Your task to perform on an android device: open app "LiveIn - Share Your Moment" Image 0: 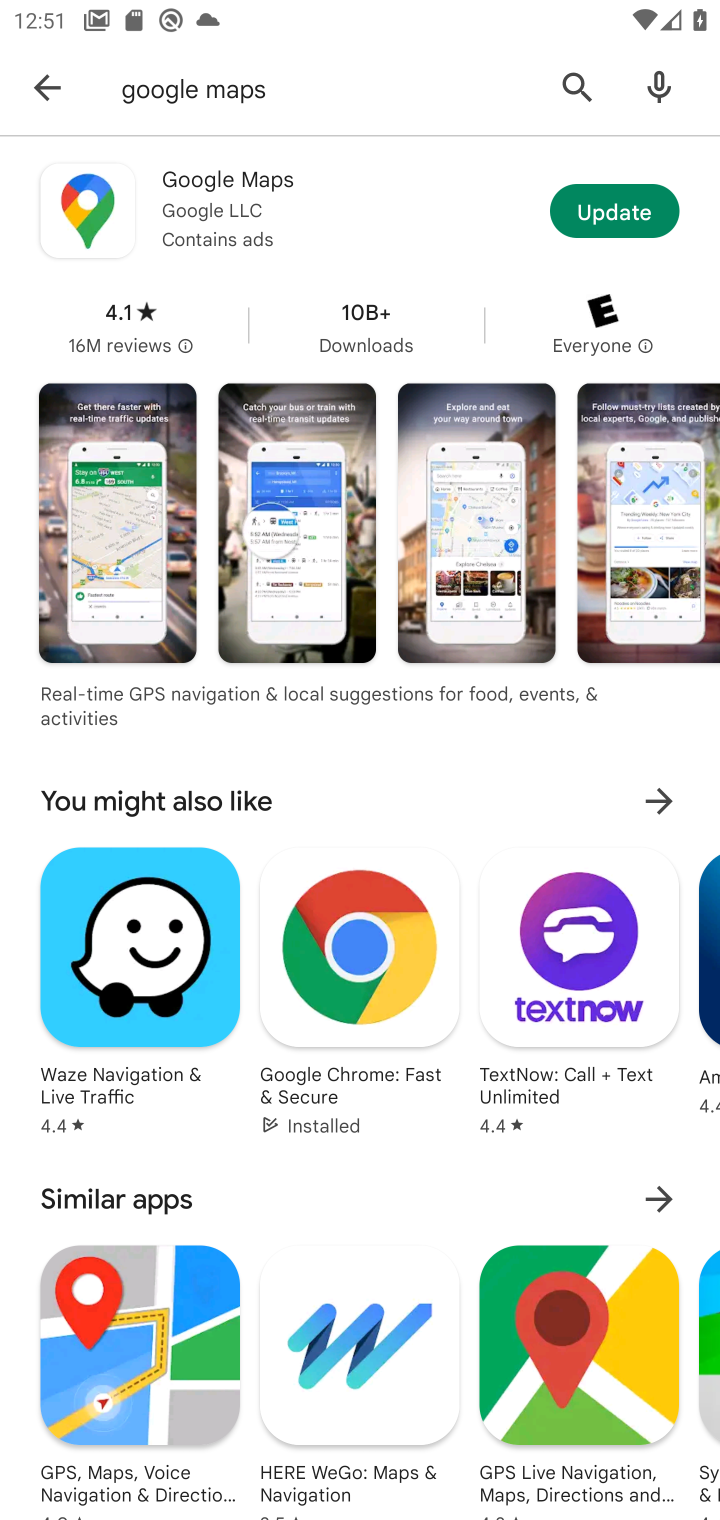
Step 0: click (50, 79)
Your task to perform on an android device: open app "LiveIn - Share Your Moment" Image 1: 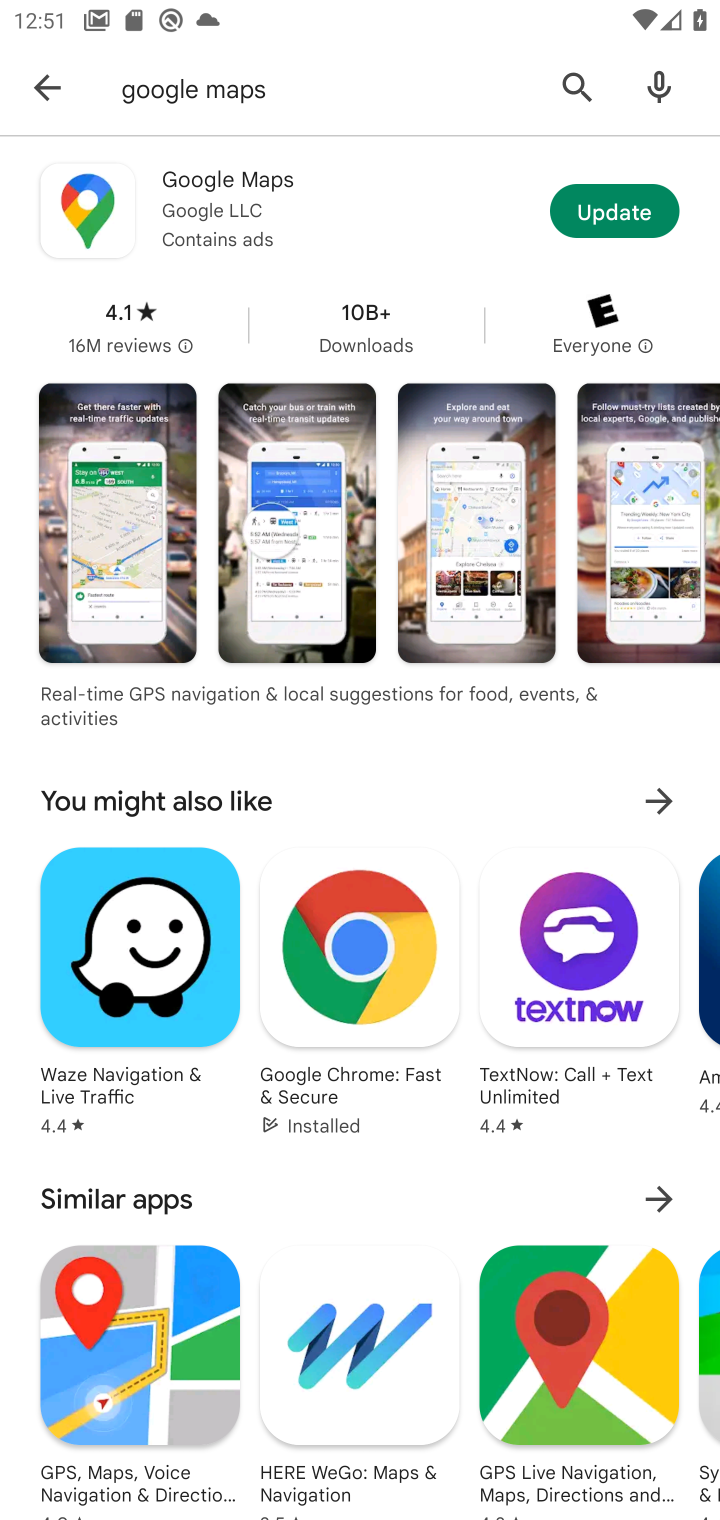
Step 1: click (46, 89)
Your task to perform on an android device: open app "LiveIn - Share Your Moment" Image 2: 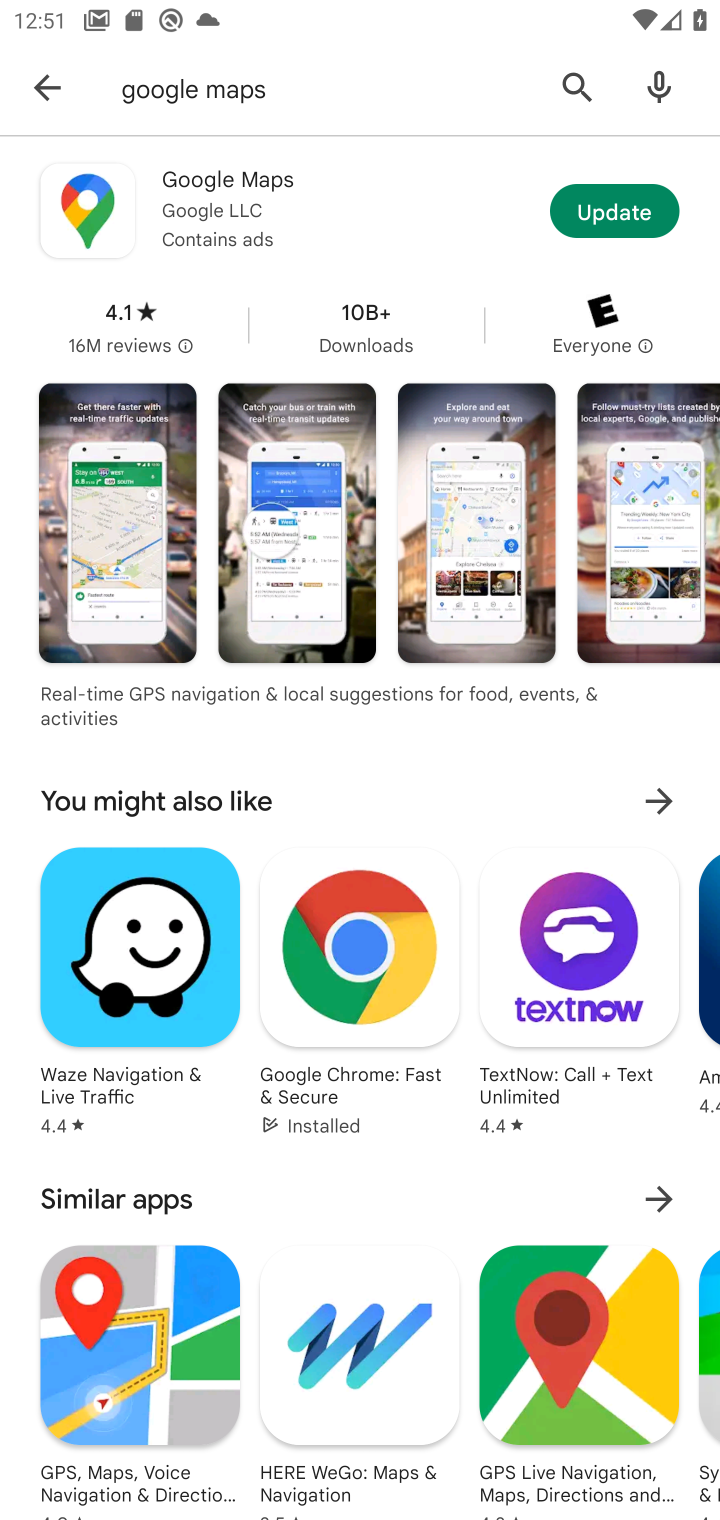
Step 2: click (36, 81)
Your task to perform on an android device: open app "LiveIn - Share Your Moment" Image 3: 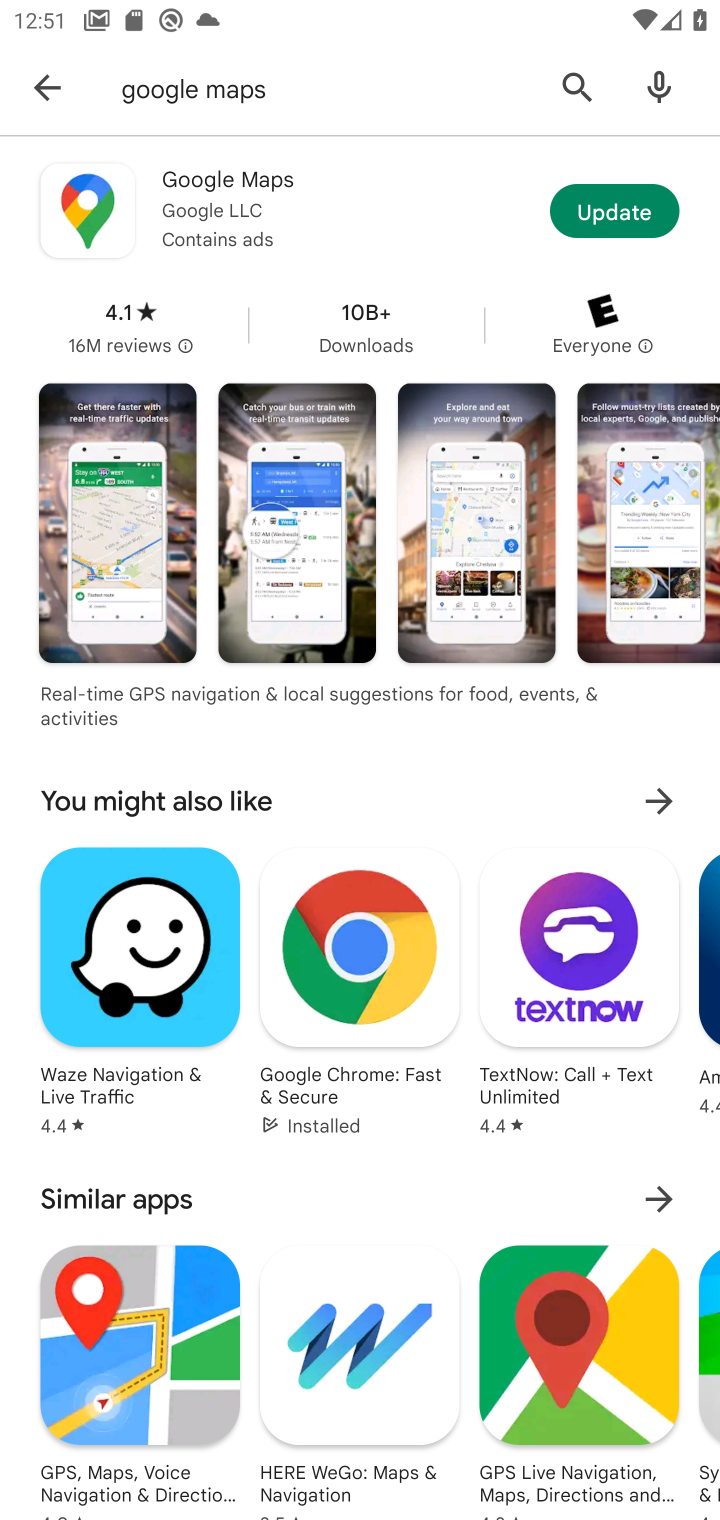
Step 3: click (37, 94)
Your task to perform on an android device: open app "LiveIn - Share Your Moment" Image 4: 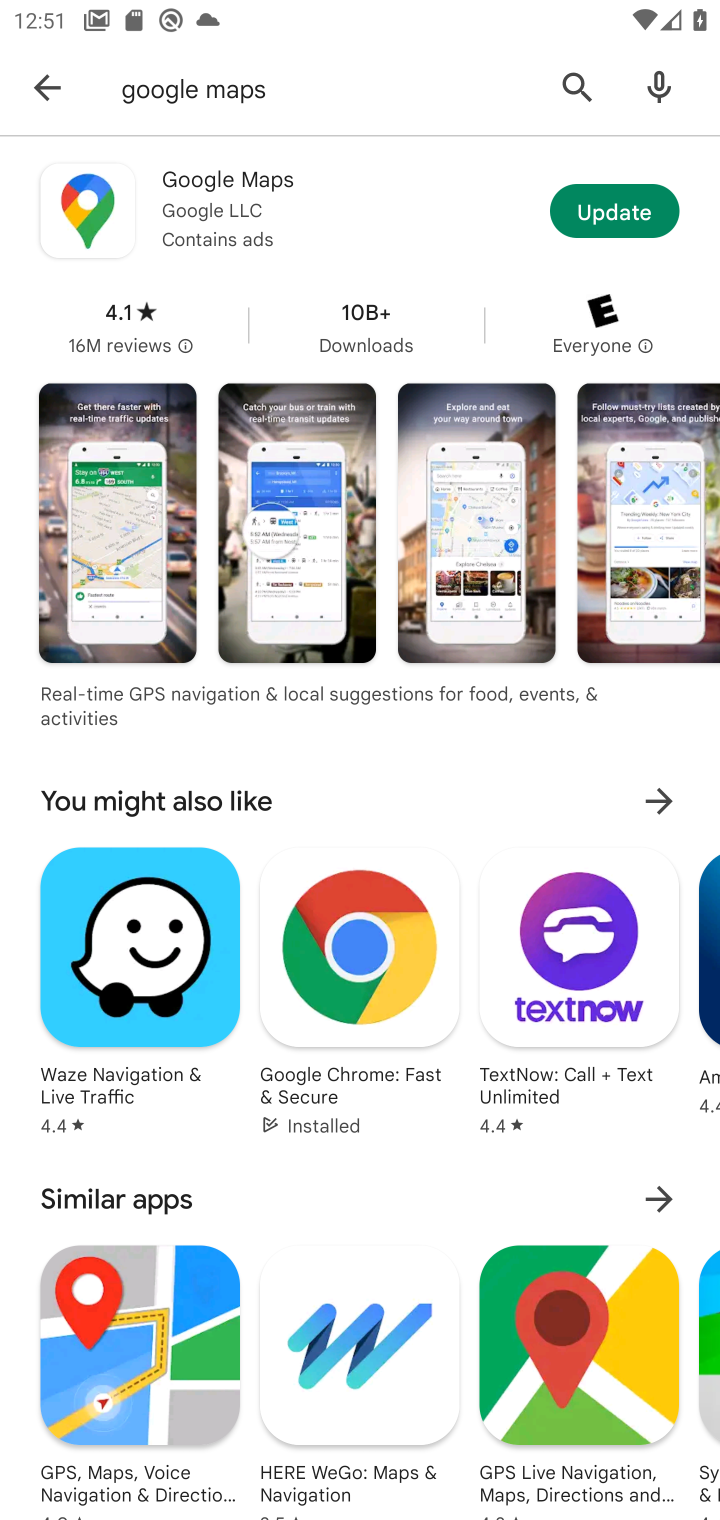
Step 4: click (31, 86)
Your task to perform on an android device: open app "LiveIn - Share Your Moment" Image 5: 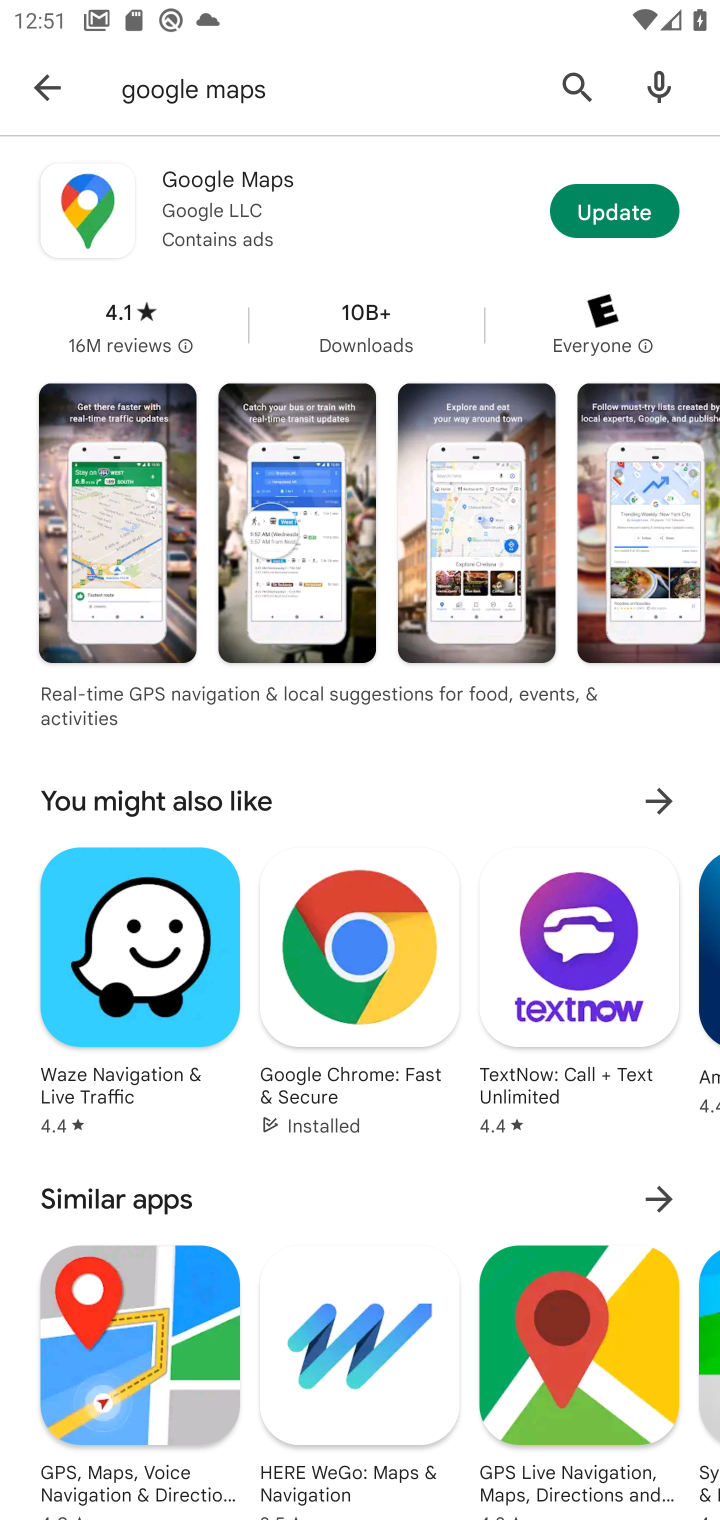
Step 5: click (37, 85)
Your task to perform on an android device: open app "LiveIn - Share Your Moment" Image 6: 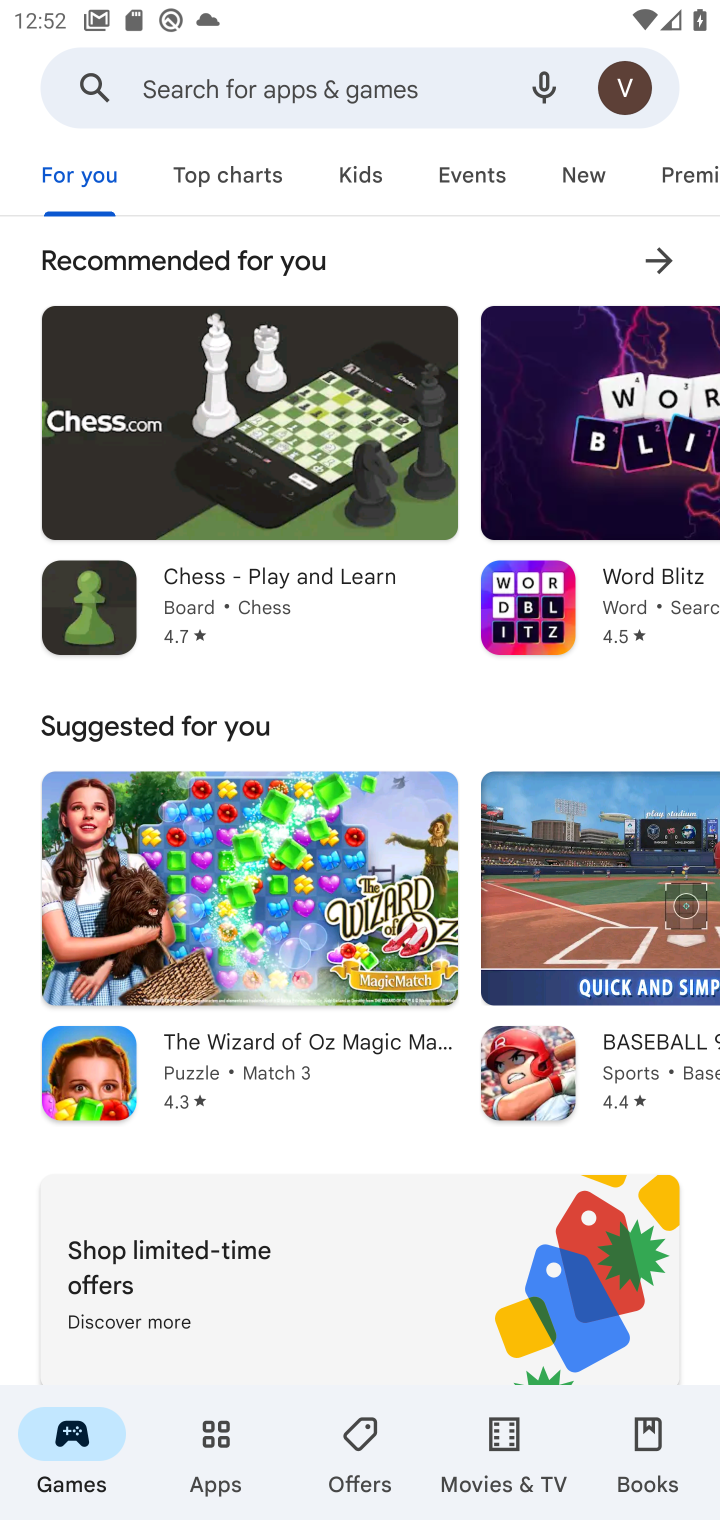
Step 6: click (164, 78)
Your task to perform on an android device: open app "LiveIn - Share Your Moment" Image 7: 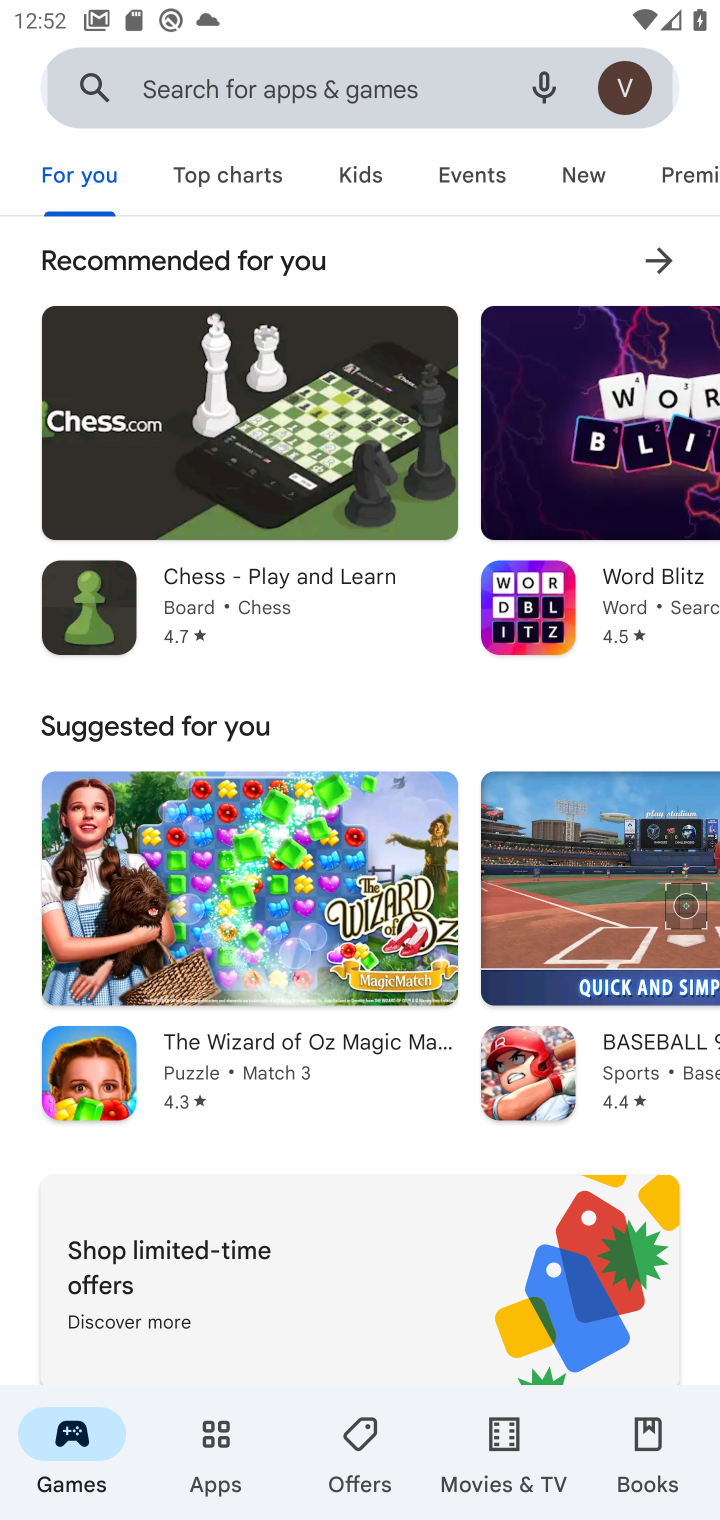
Step 7: click (166, 78)
Your task to perform on an android device: open app "LiveIn - Share Your Moment" Image 8: 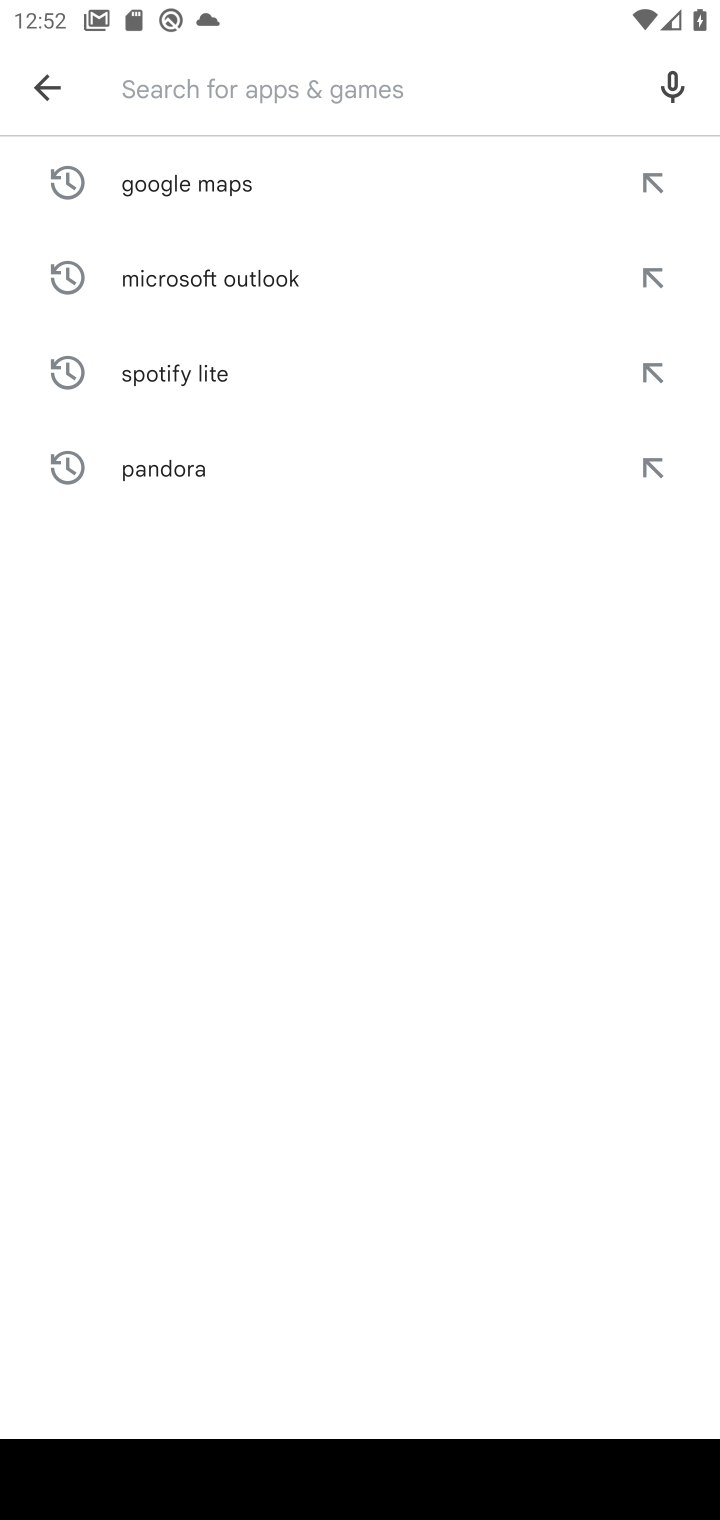
Step 8: type "LiveIN"
Your task to perform on an android device: open app "LiveIn - Share Your Moment" Image 9: 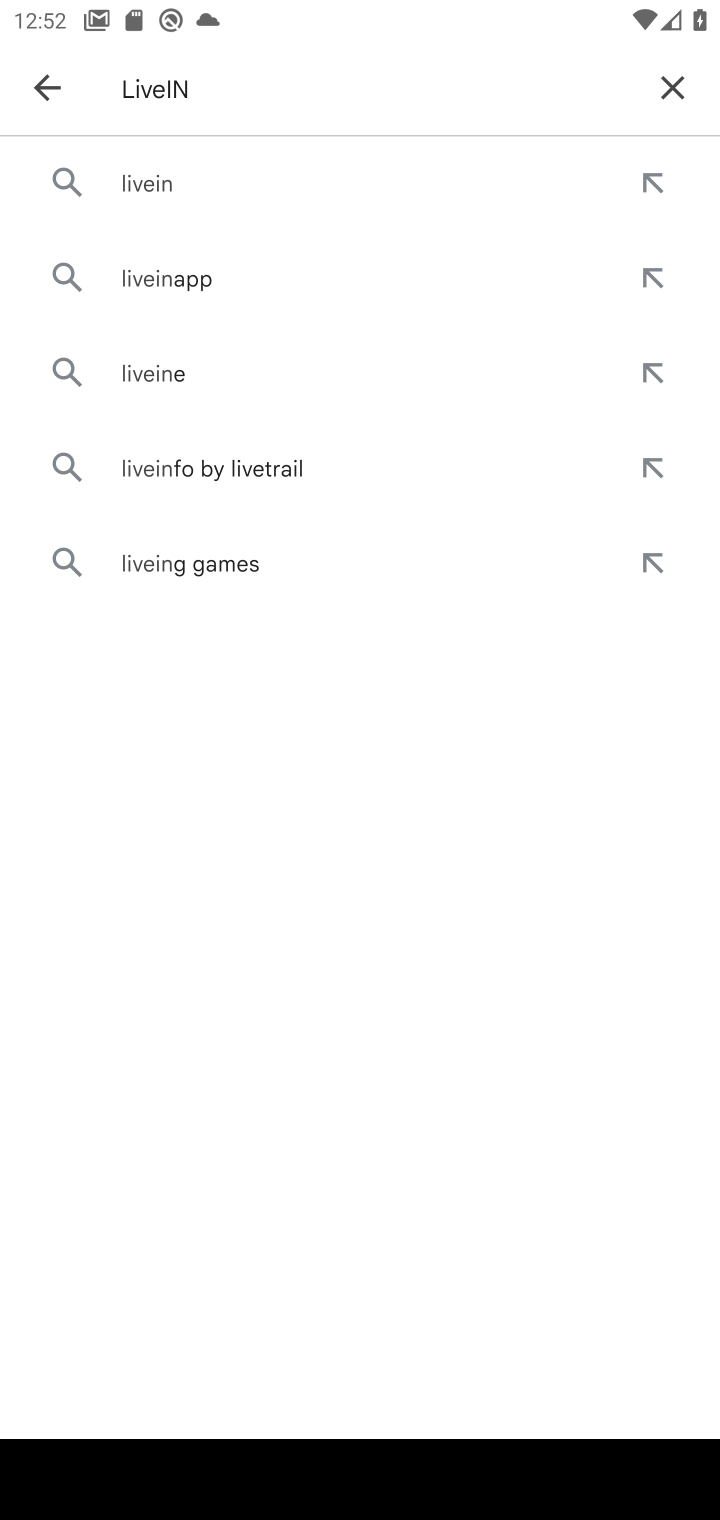
Step 9: click (150, 168)
Your task to perform on an android device: open app "LiveIn - Share Your Moment" Image 10: 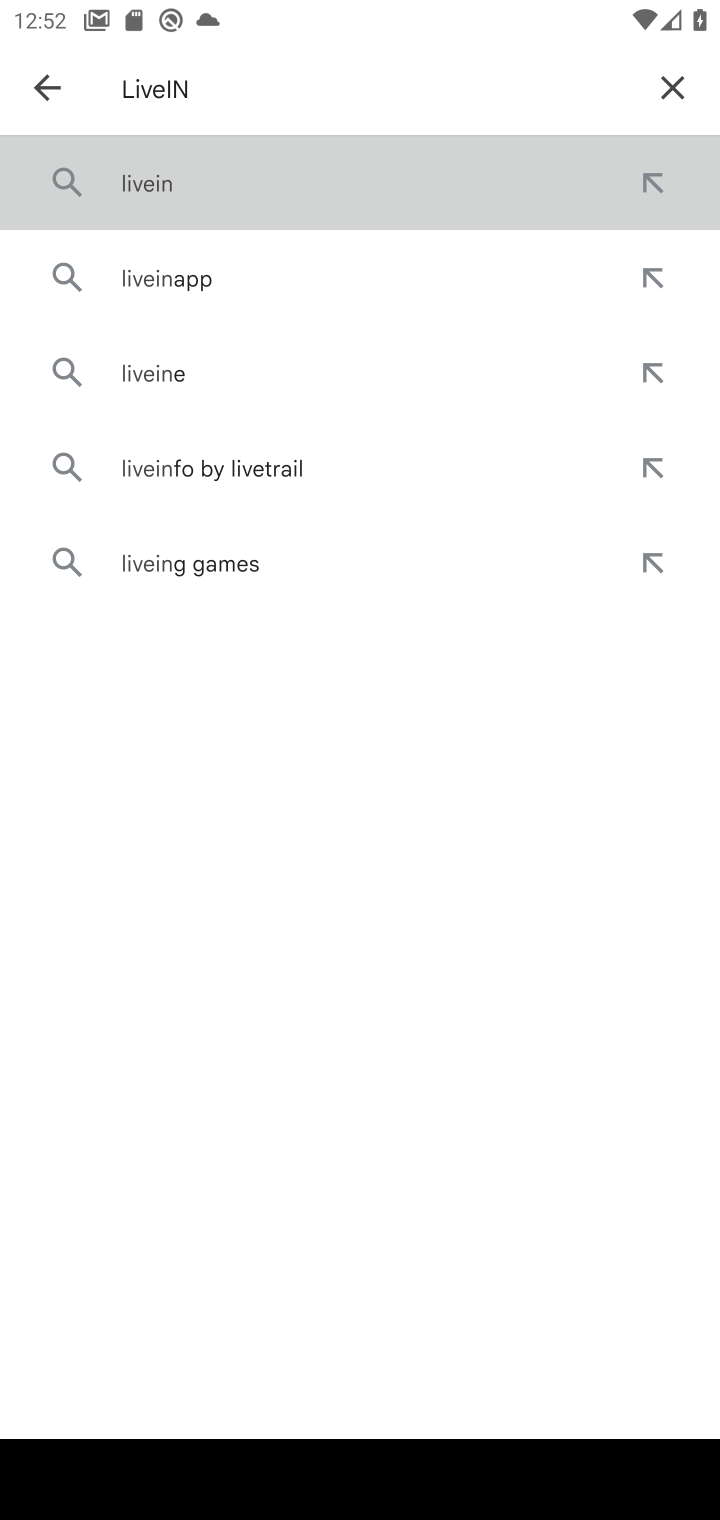
Step 10: click (147, 165)
Your task to perform on an android device: open app "LiveIn - Share Your Moment" Image 11: 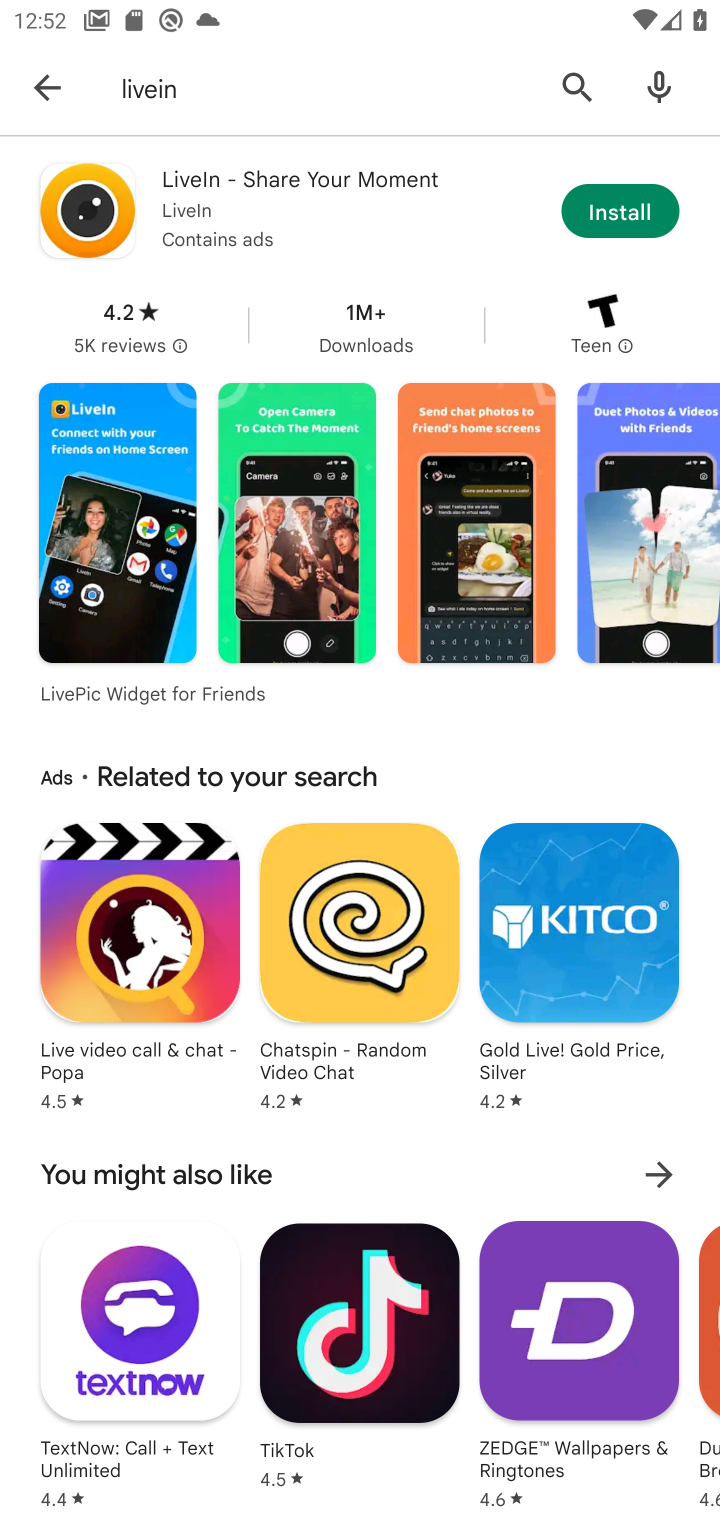
Step 11: click (602, 218)
Your task to perform on an android device: open app "LiveIn - Share Your Moment" Image 12: 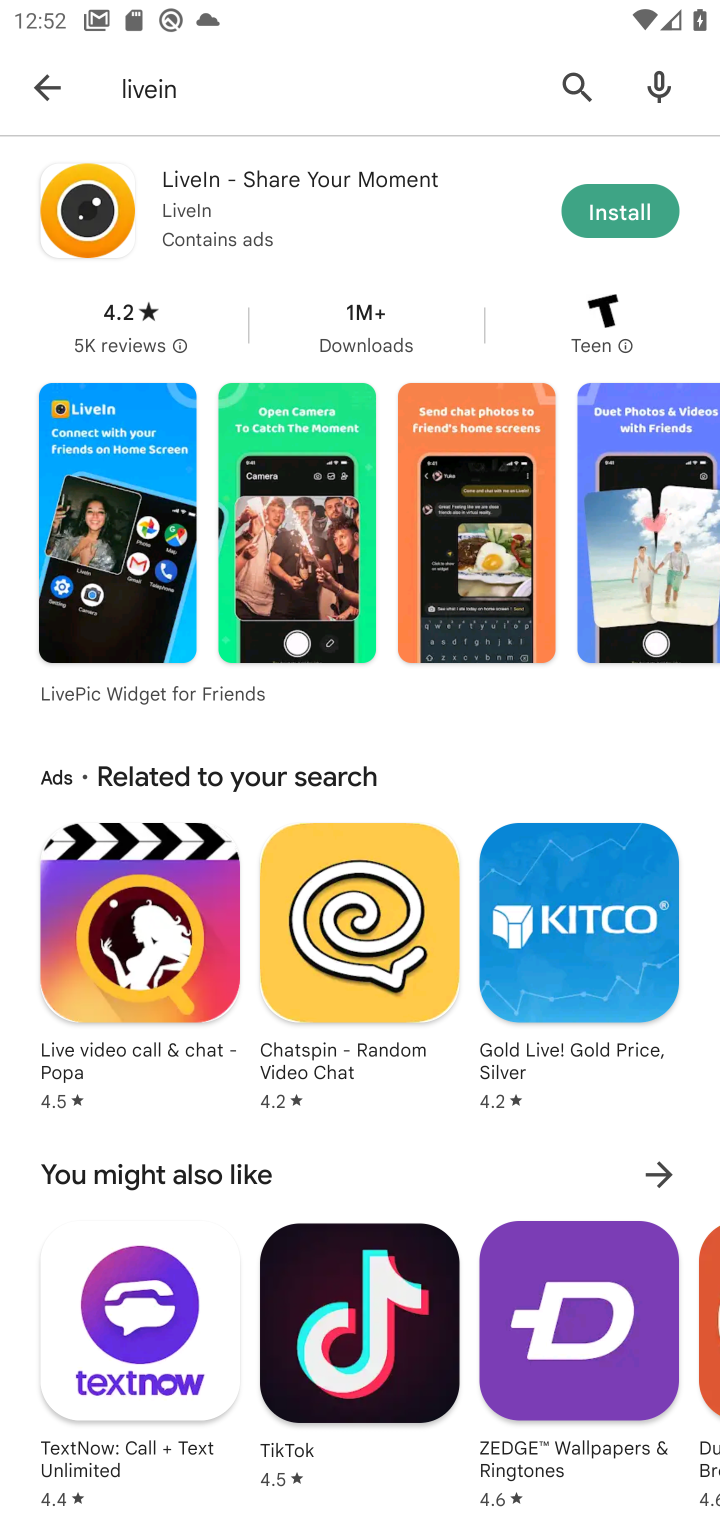
Step 12: click (619, 203)
Your task to perform on an android device: open app "LiveIn - Share Your Moment" Image 13: 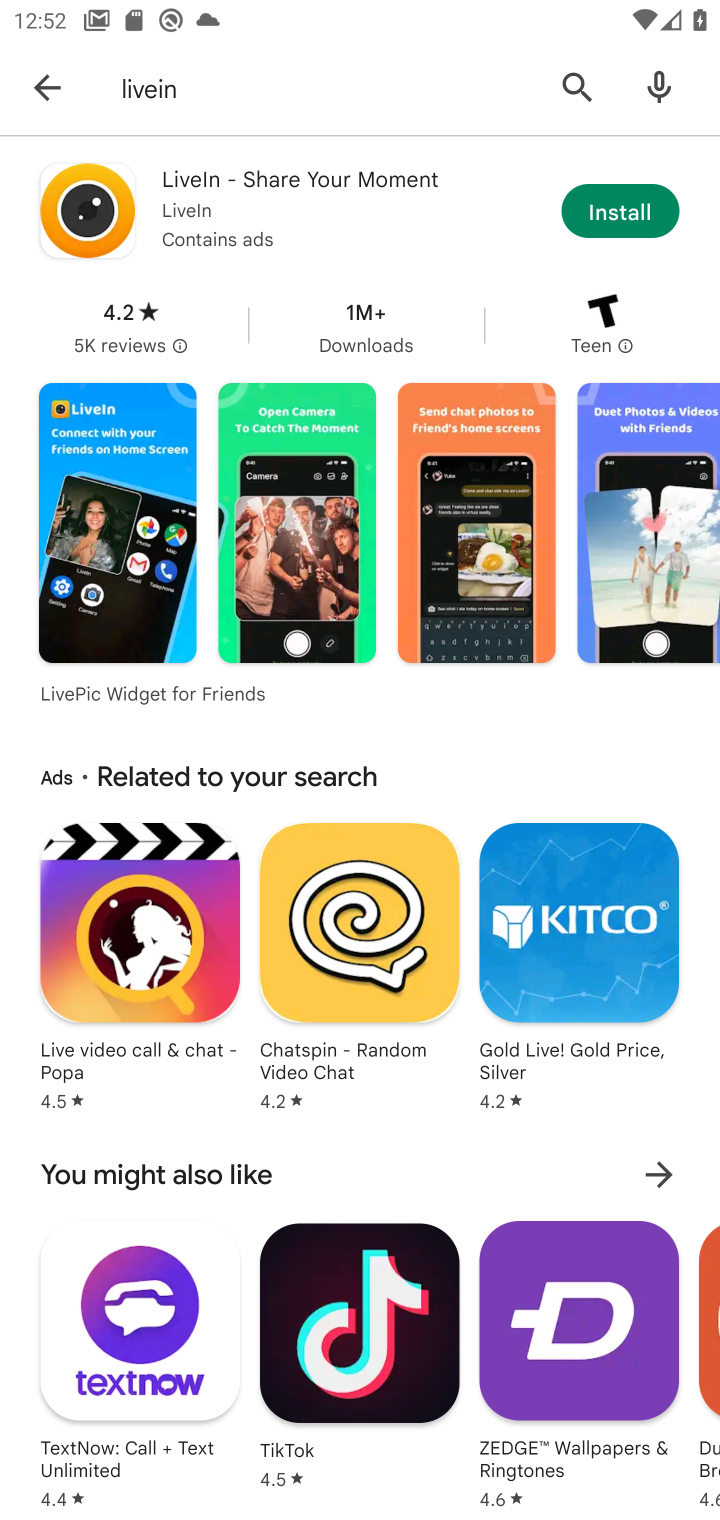
Step 13: click (596, 206)
Your task to perform on an android device: open app "LiveIn - Share Your Moment" Image 14: 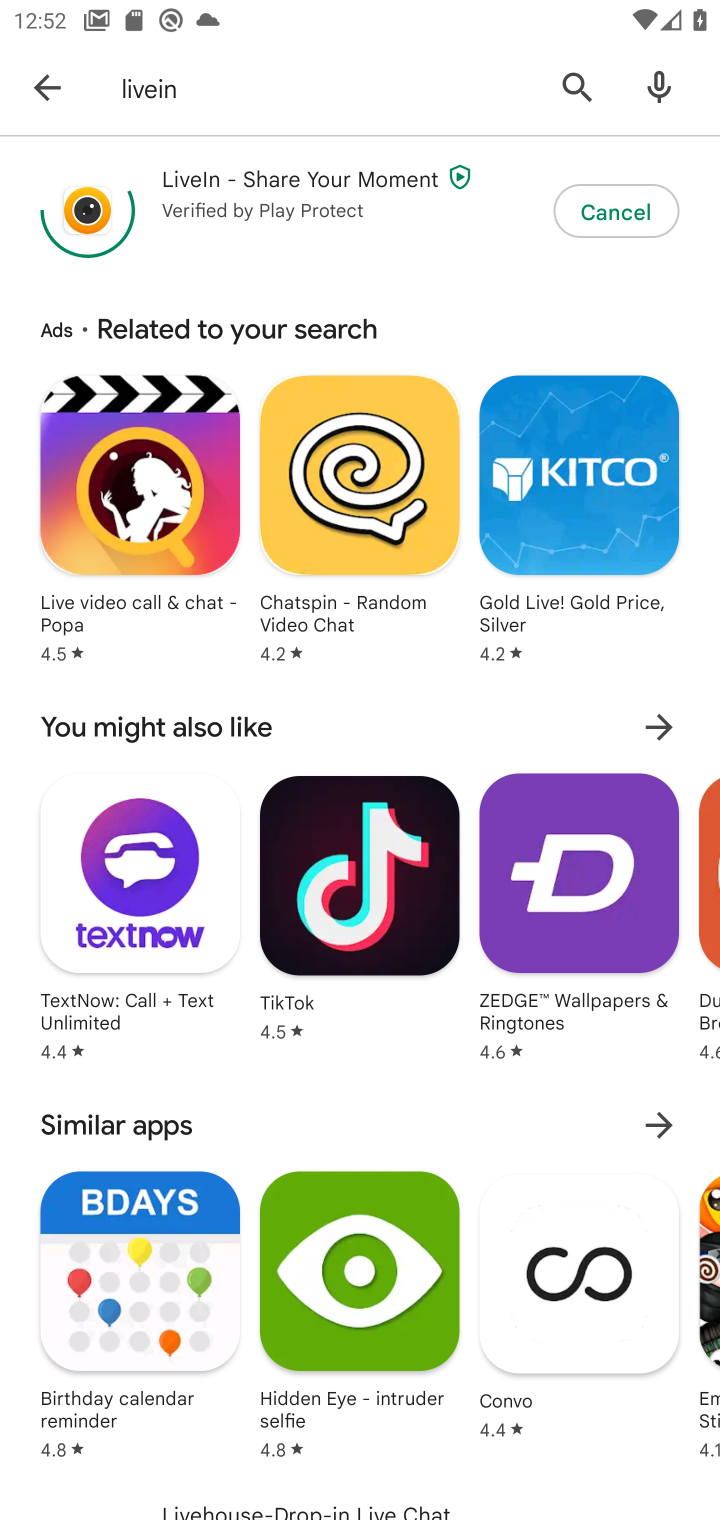
Step 14: click (611, 216)
Your task to perform on an android device: open app "LiveIn - Share Your Moment" Image 15: 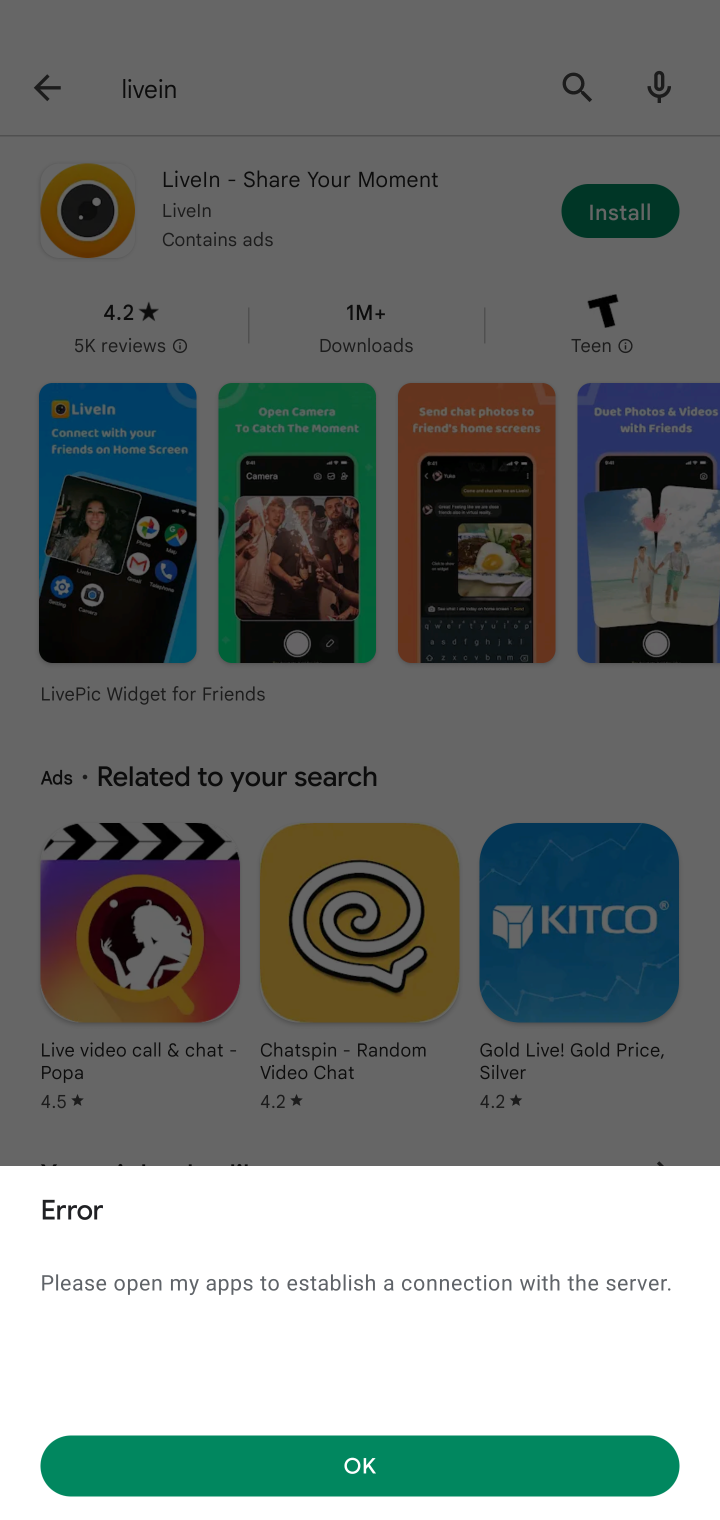
Step 15: click (408, 1469)
Your task to perform on an android device: open app "LiveIn - Share Your Moment" Image 16: 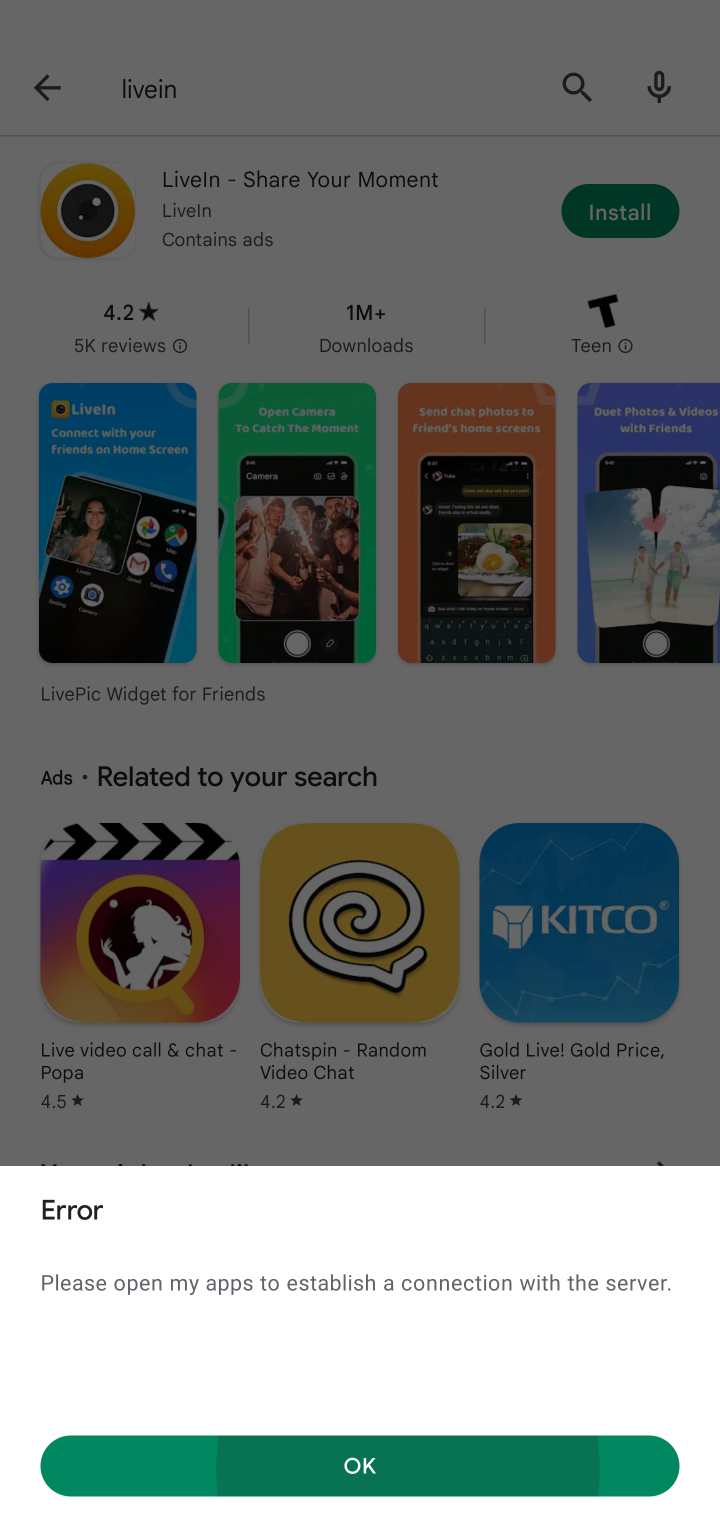
Step 16: click (412, 1471)
Your task to perform on an android device: open app "LiveIn - Share Your Moment" Image 17: 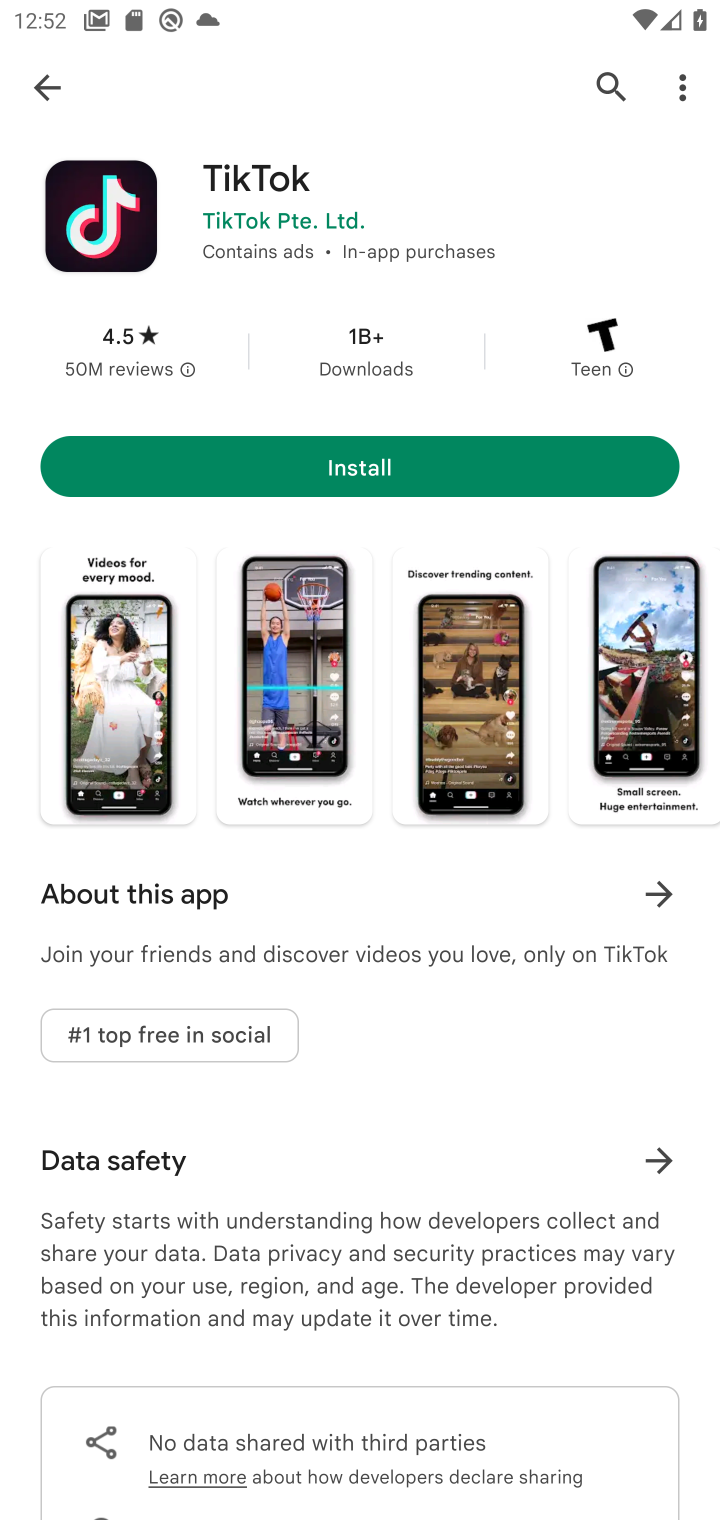
Step 17: click (58, 75)
Your task to perform on an android device: open app "LiveIn - Share Your Moment" Image 18: 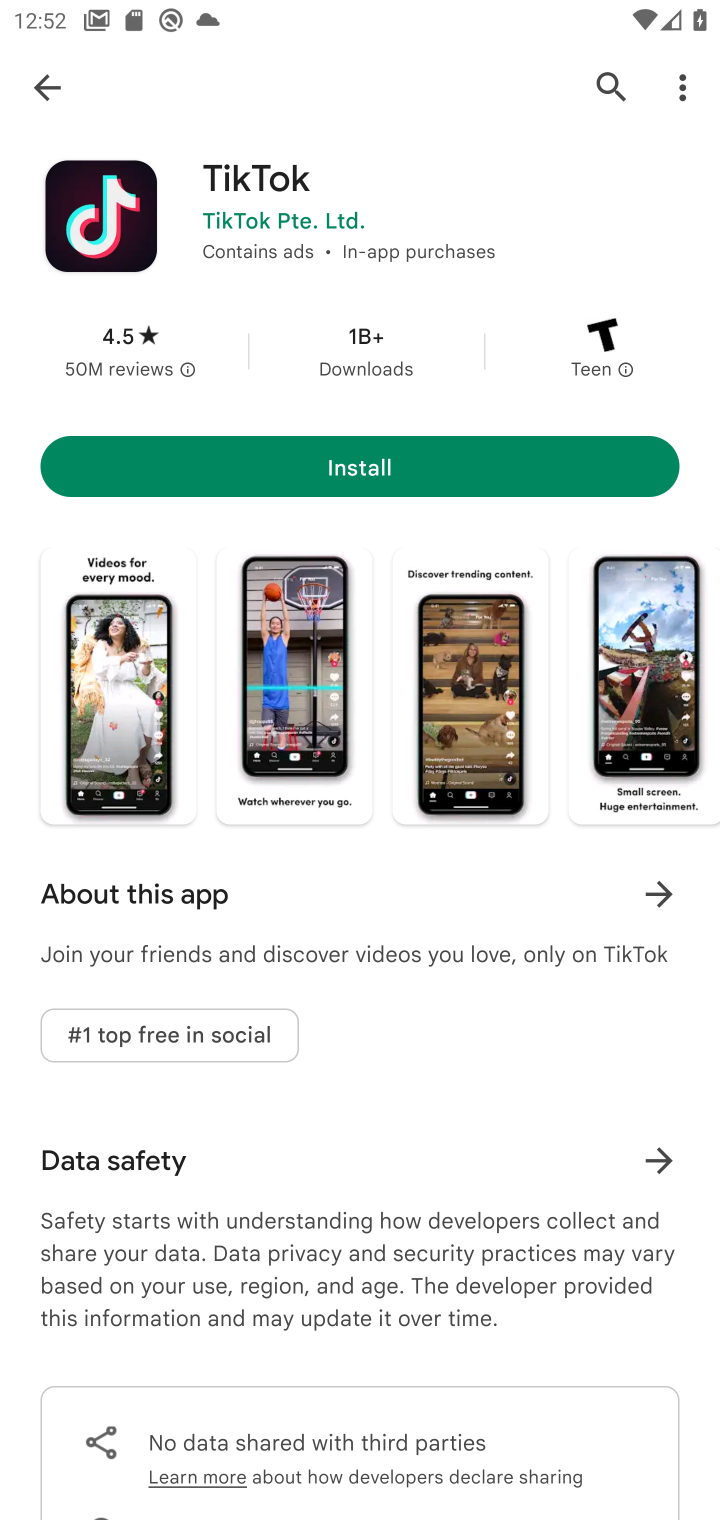
Step 18: click (56, 83)
Your task to perform on an android device: open app "LiveIn - Share Your Moment" Image 19: 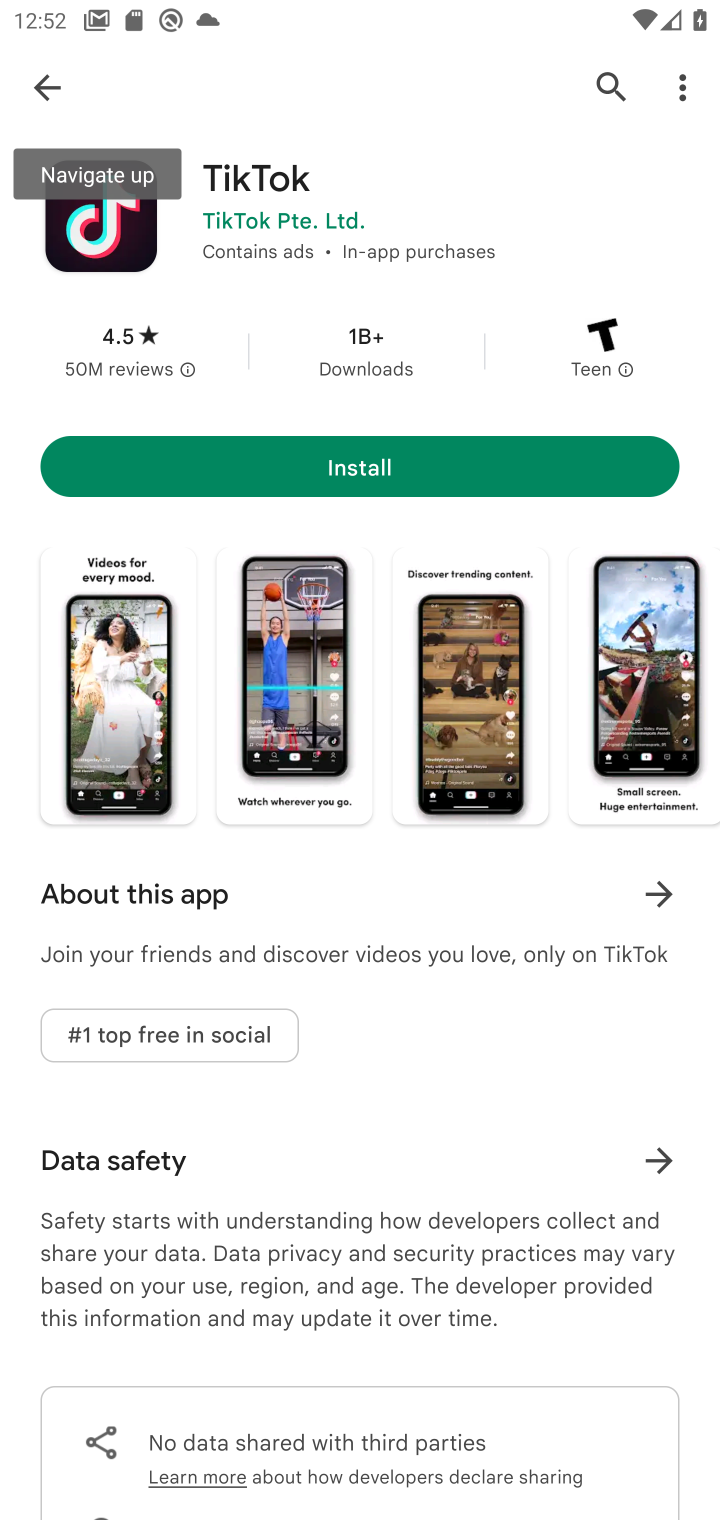
Step 19: click (57, 87)
Your task to perform on an android device: open app "LiveIn - Share Your Moment" Image 20: 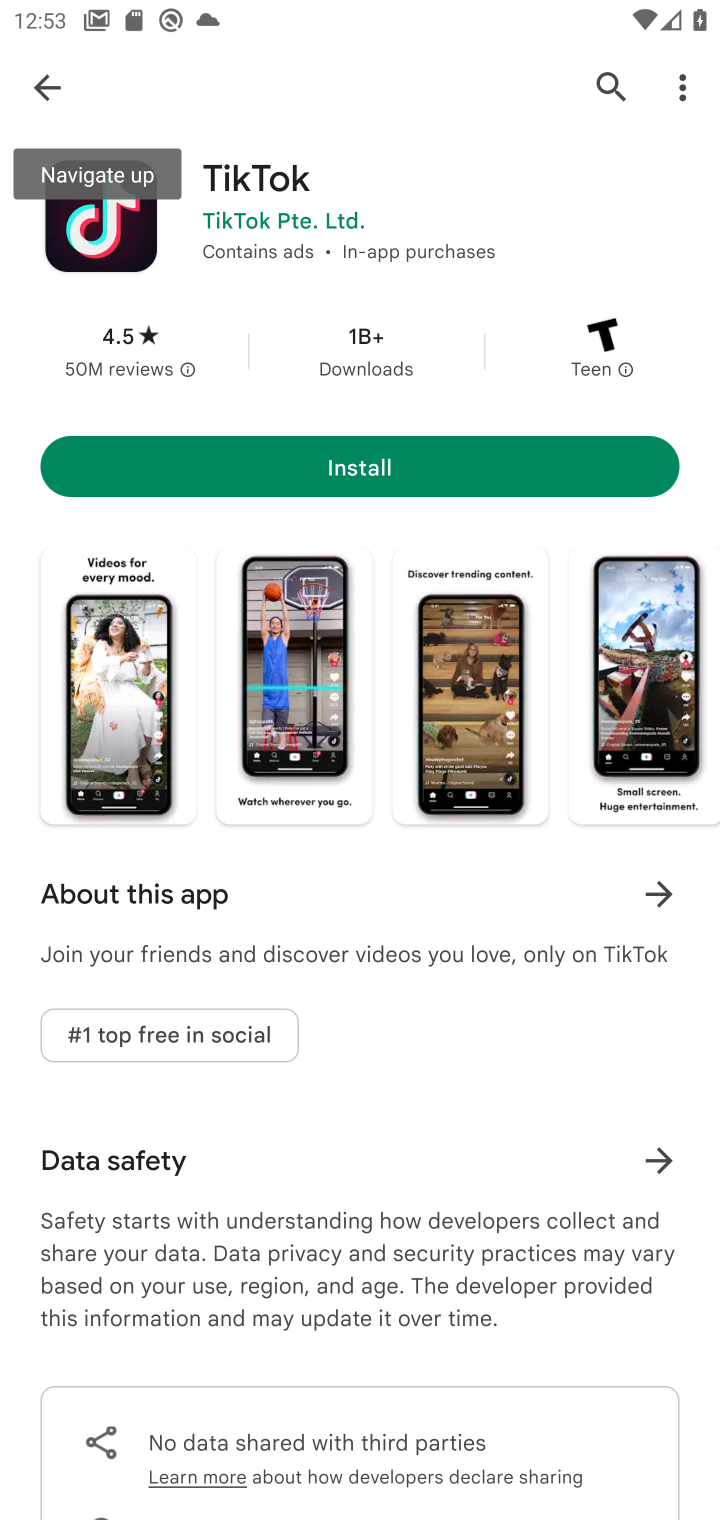
Step 20: click (57, 87)
Your task to perform on an android device: open app "LiveIn - Share Your Moment" Image 21: 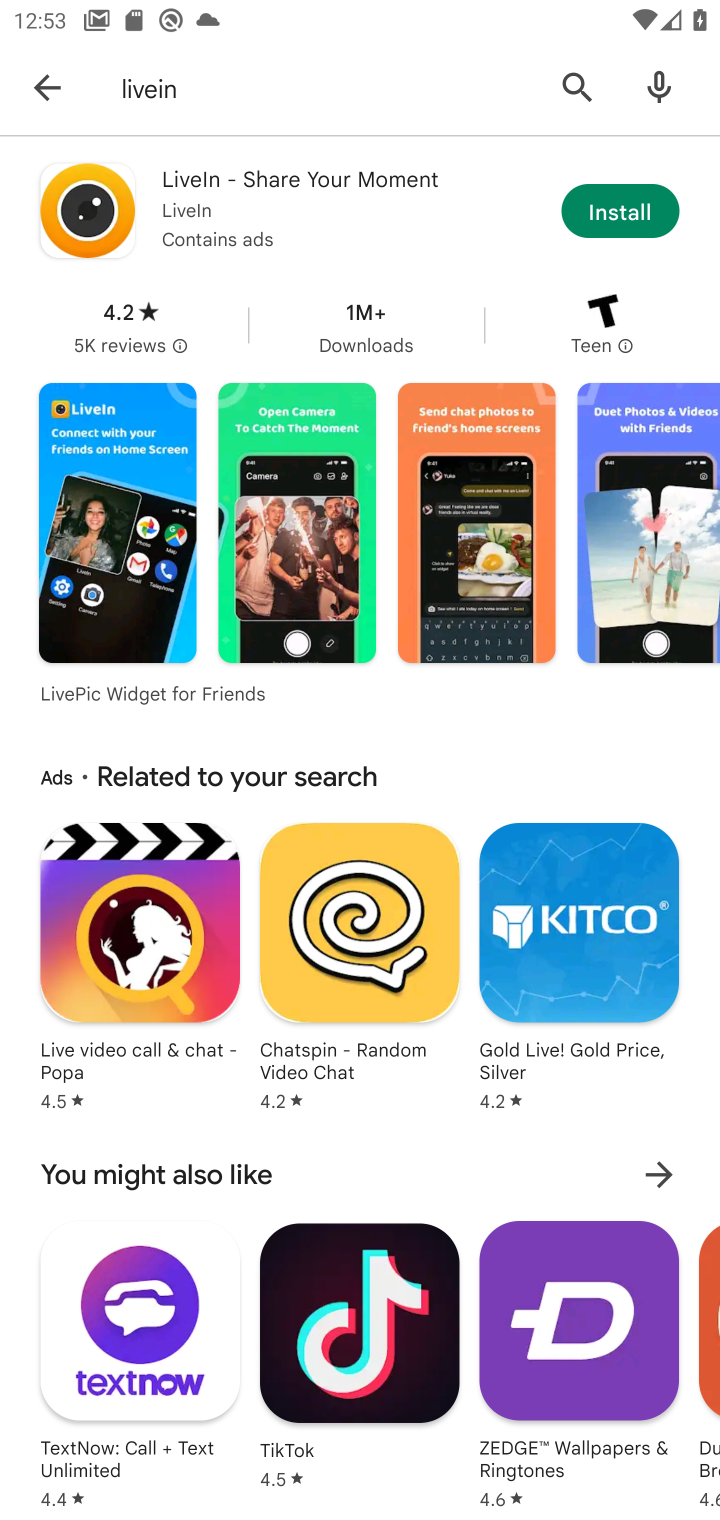
Step 21: click (61, 87)
Your task to perform on an android device: open app "LiveIn - Share Your Moment" Image 22: 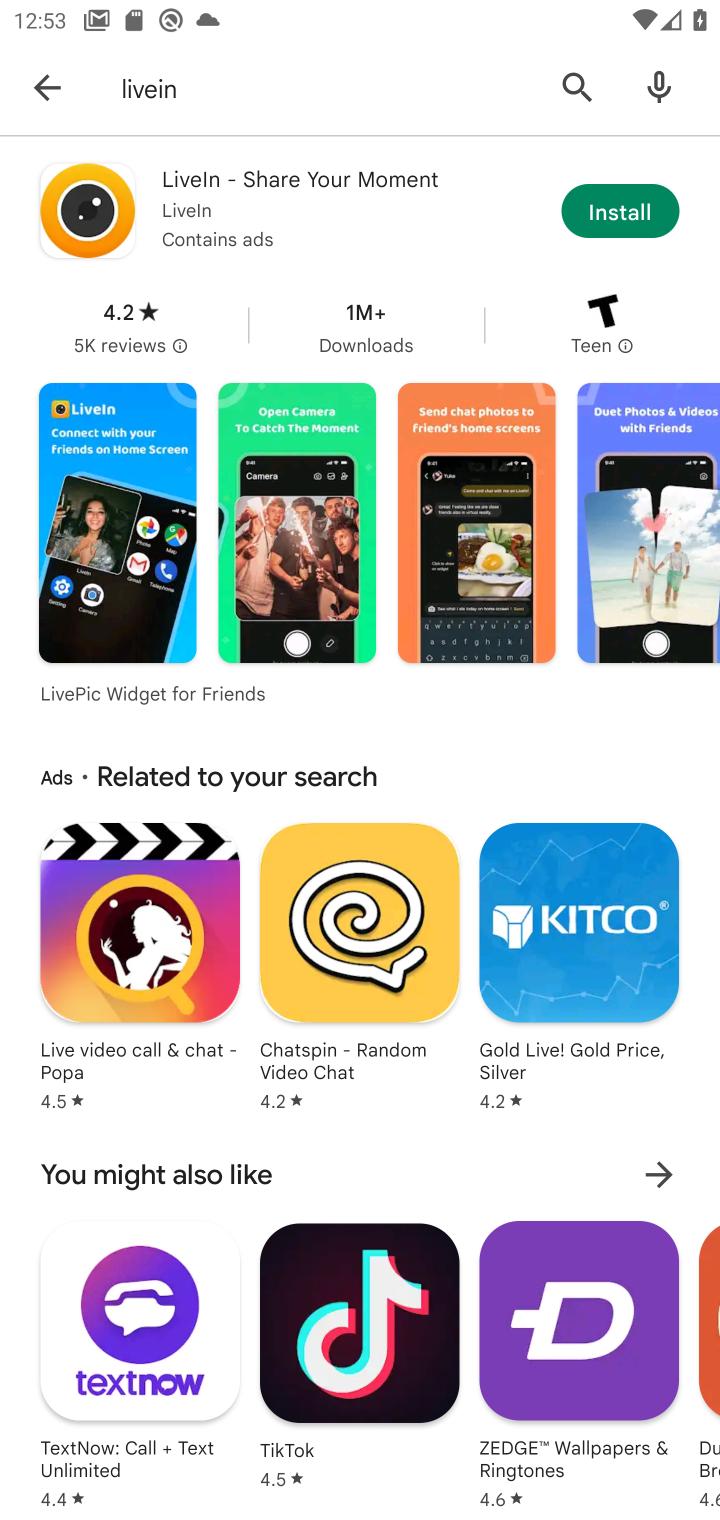
Step 22: click (47, 74)
Your task to perform on an android device: open app "LiveIn - Share Your Moment" Image 23: 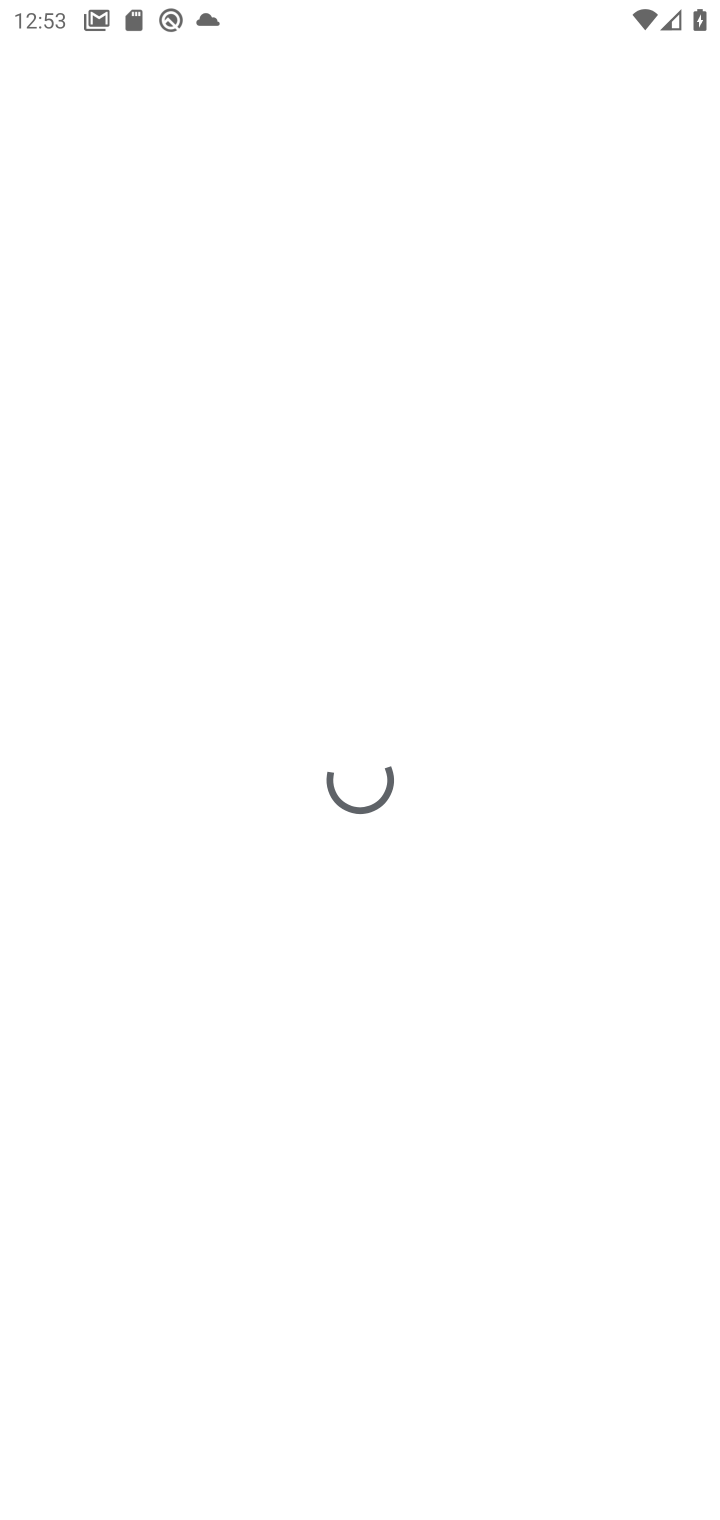
Step 23: click (588, 205)
Your task to perform on an android device: open app "LiveIn - Share Your Moment" Image 24: 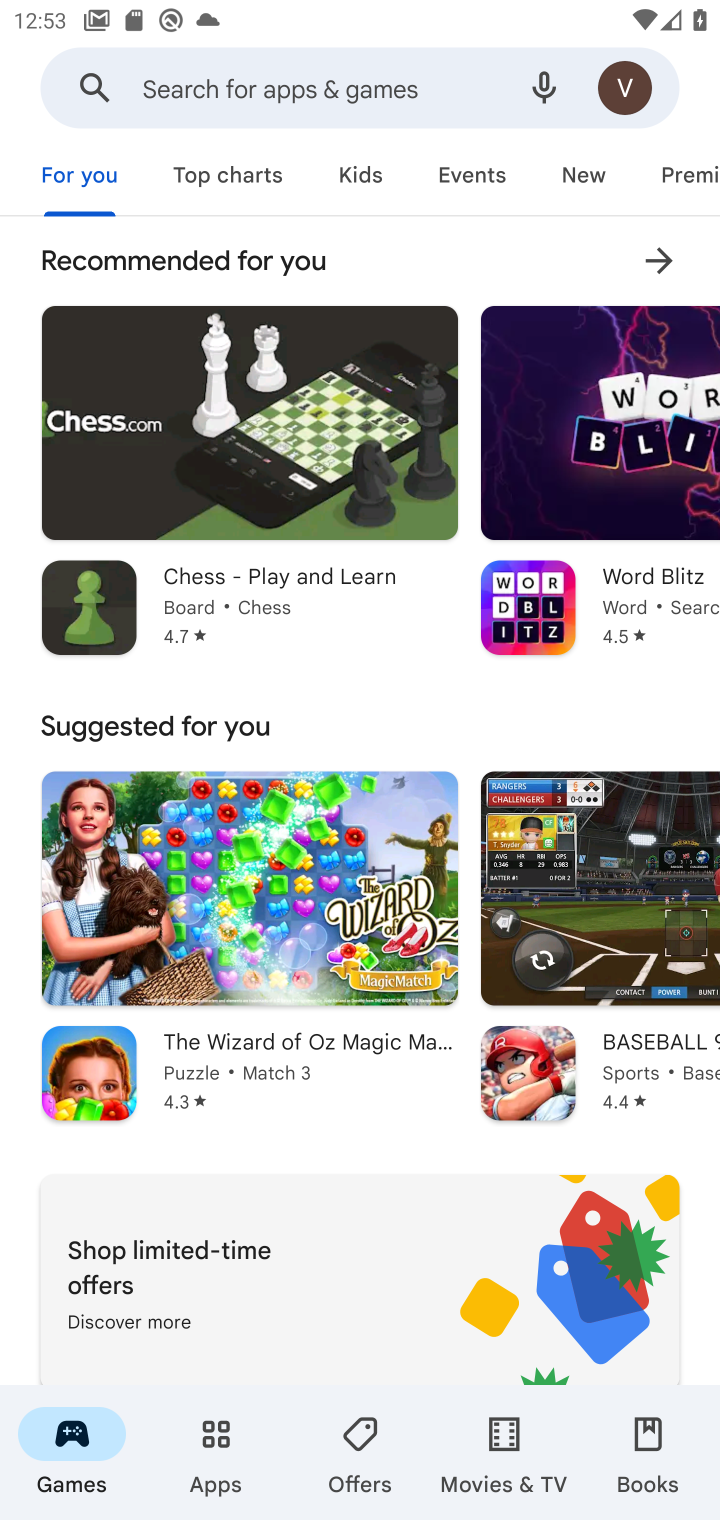
Step 24: task complete